Your task to perform on an android device: search for starred emails in the gmail app Image 0: 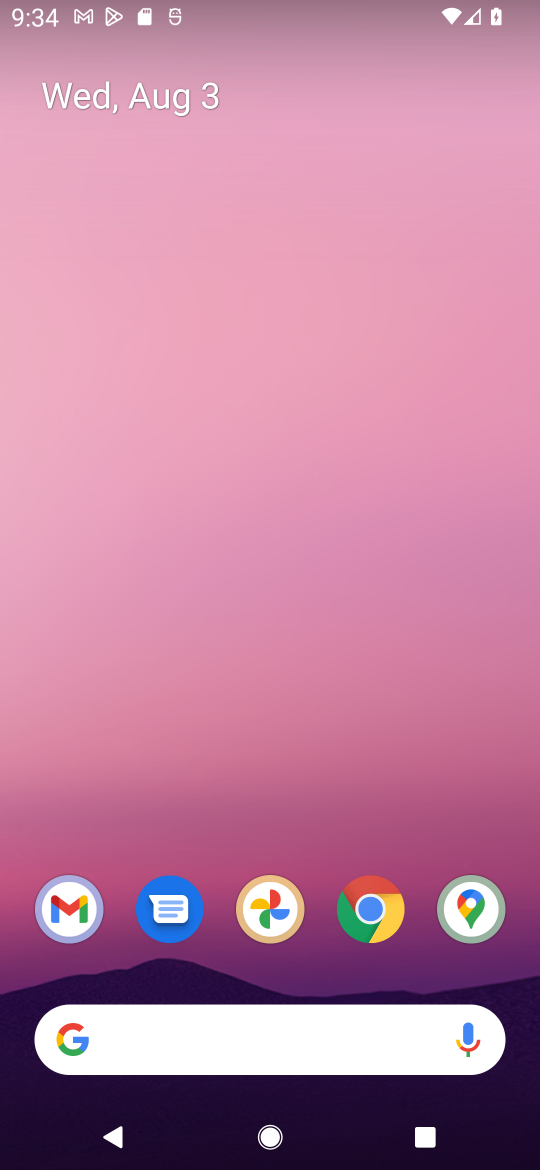
Step 0: press home button
Your task to perform on an android device: search for starred emails in the gmail app Image 1: 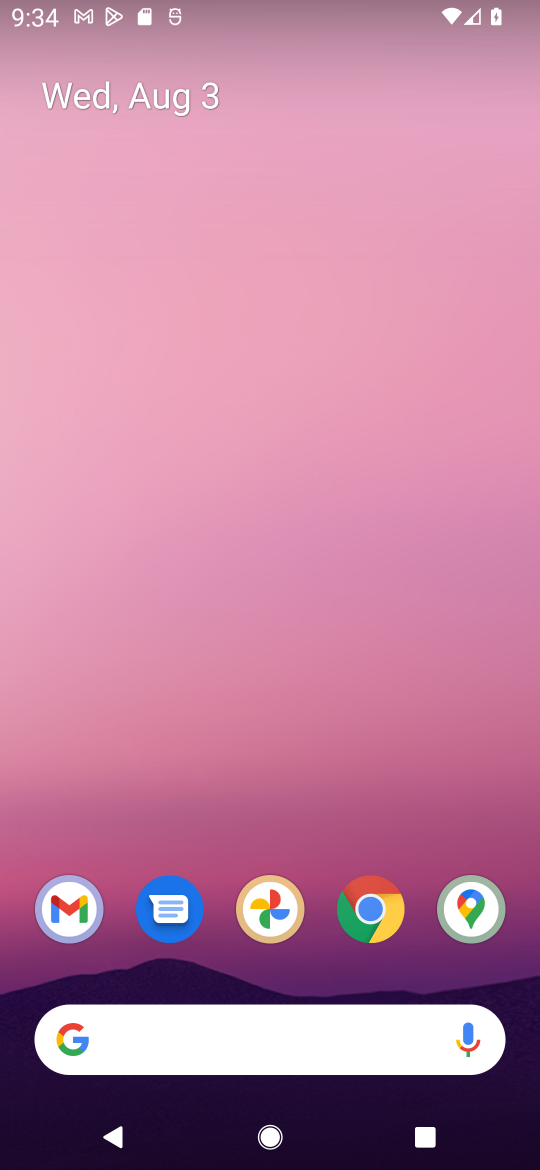
Step 1: drag from (432, 838) to (437, 255)
Your task to perform on an android device: search for starred emails in the gmail app Image 2: 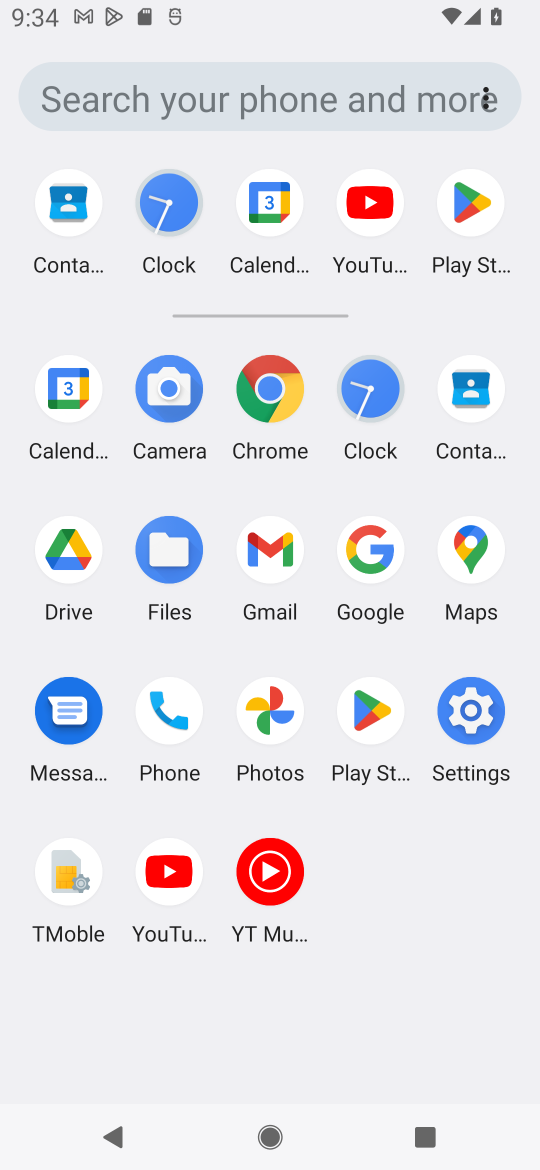
Step 2: click (270, 566)
Your task to perform on an android device: search for starred emails in the gmail app Image 3: 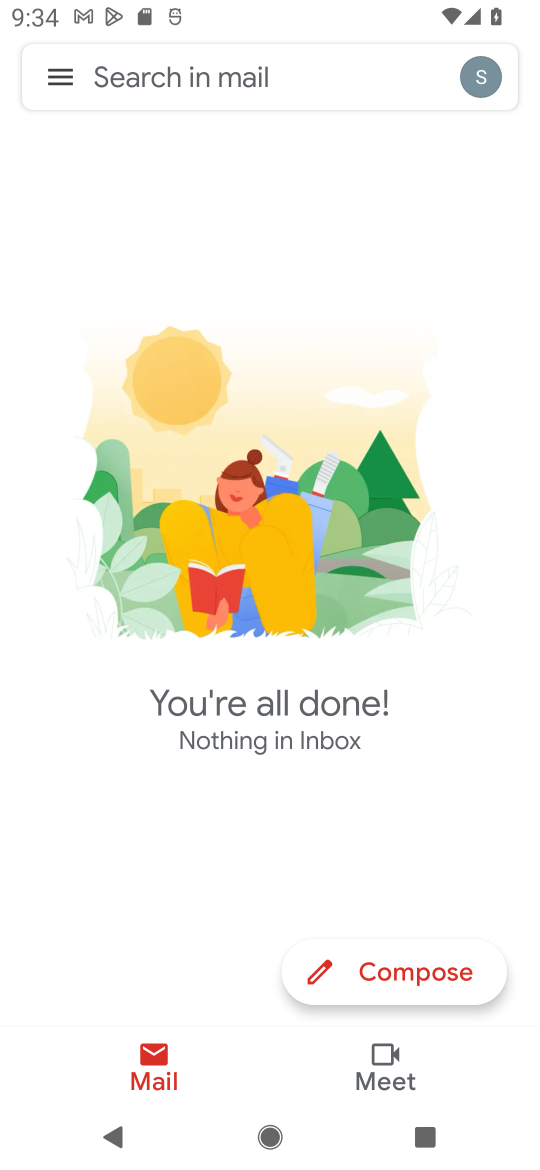
Step 3: click (67, 79)
Your task to perform on an android device: search for starred emails in the gmail app Image 4: 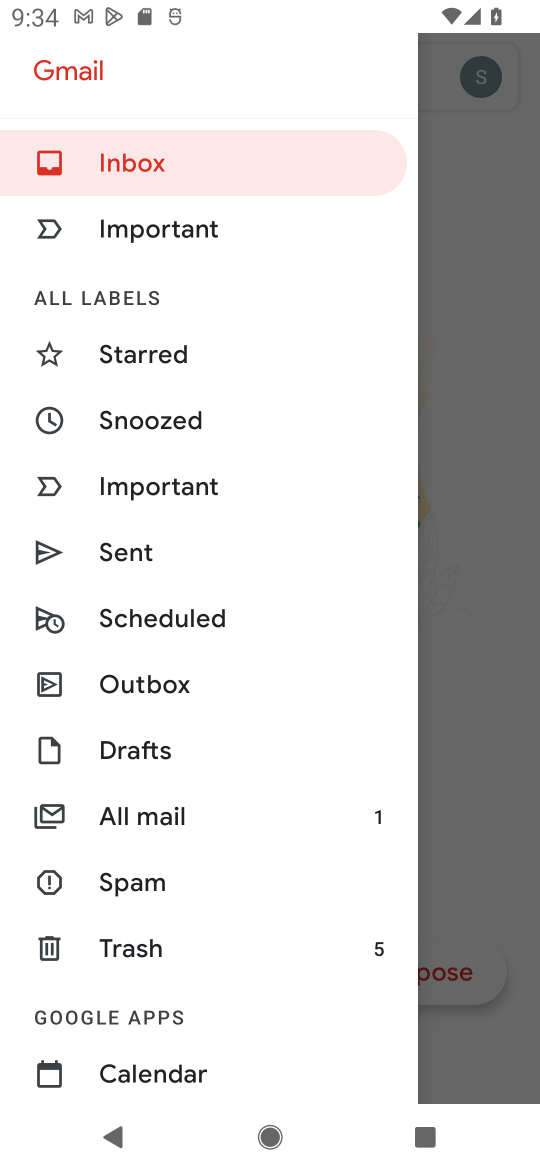
Step 4: drag from (288, 691) to (264, 542)
Your task to perform on an android device: search for starred emails in the gmail app Image 5: 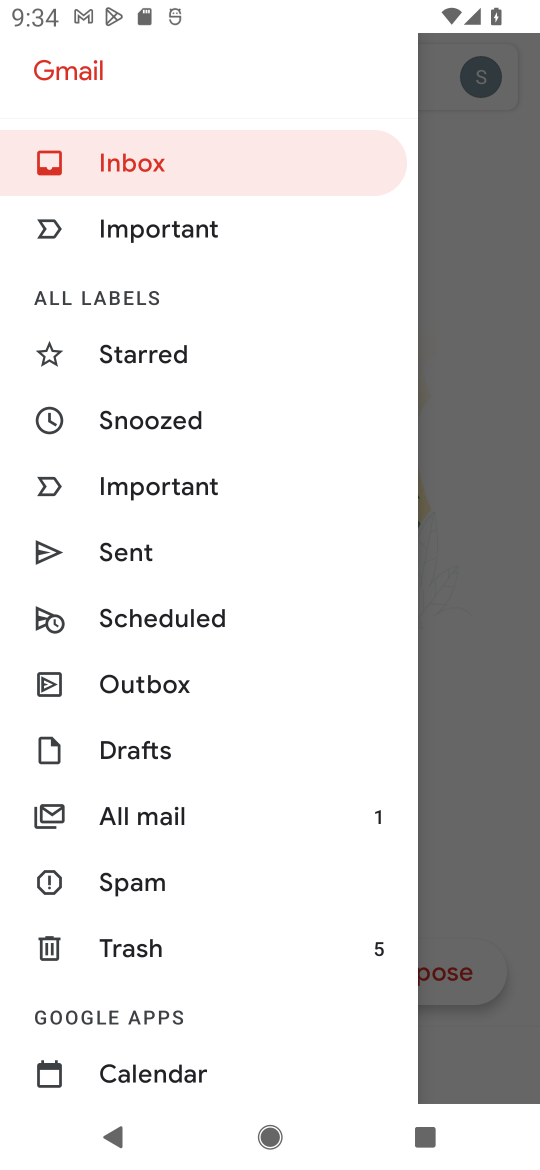
Step 5: drag from (259, 921) to (277, 574)
Your task to perform on an android device: search for starred emails in the gmail app Image 6: 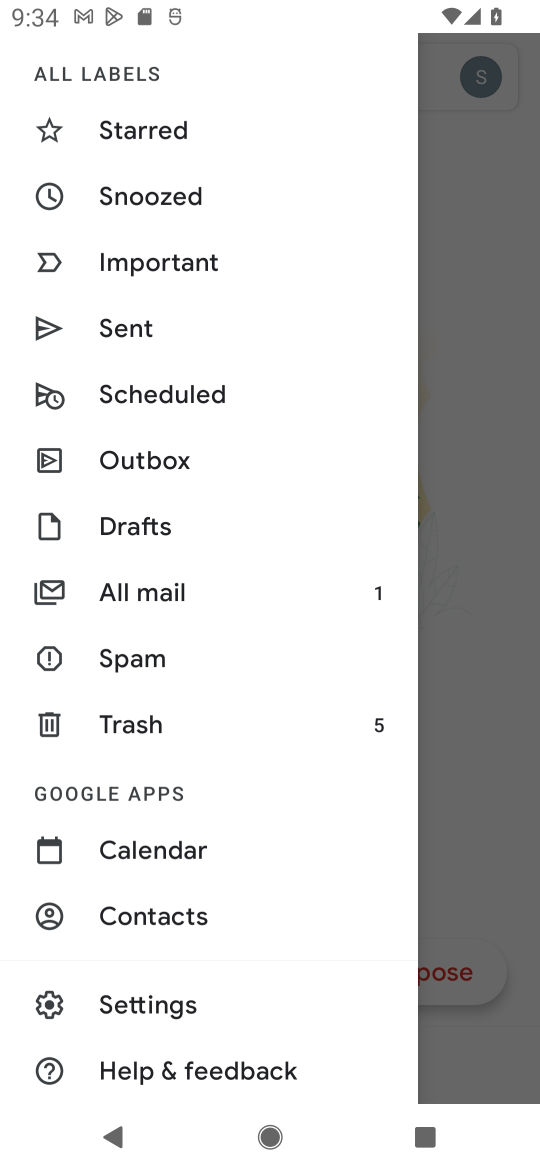
Step 6: drag from (295, 531) to (296, 754)
Your task to perform on an android device: search for starred emails in the gmail app Image 7: 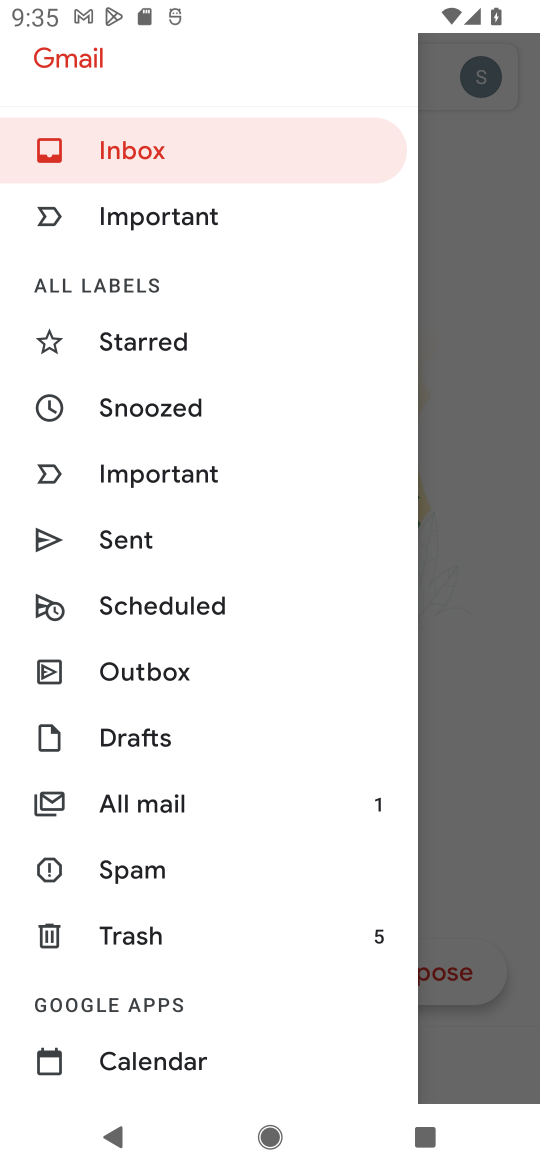
Step 7: drag from (289, 382) to (281, 682)
Your task to perform on an android device: search for starred emails in the gmail app Image 8: 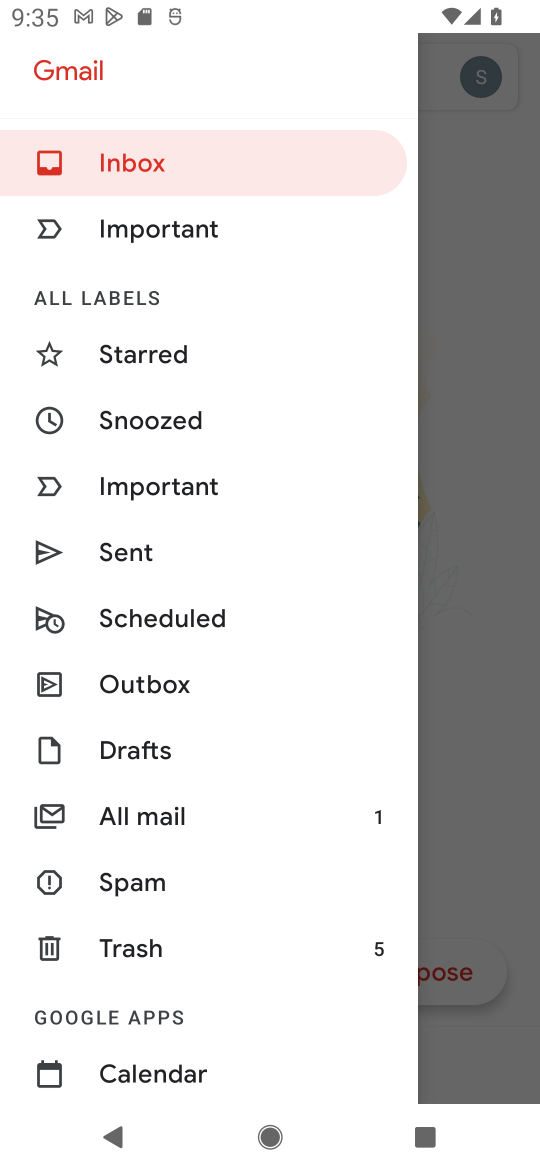
Step 8: click (249, 362)
Your task to perform on an android device: search for starred emails in the gmail app Image 9: 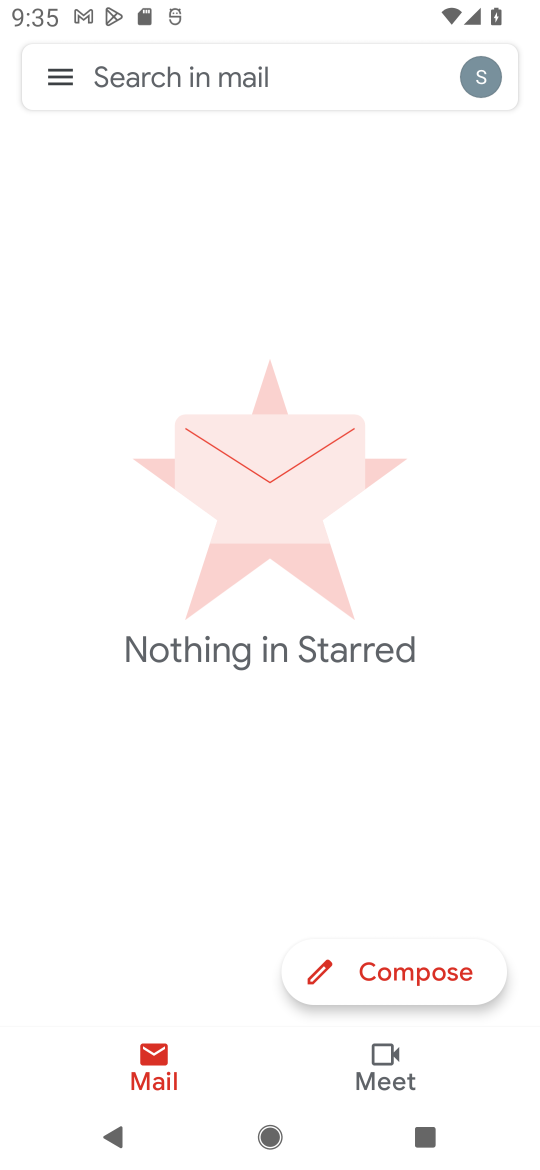
Step 9: task complete